Your task to perform on an android device: What's the weather going to be tomorrow? Image 0: 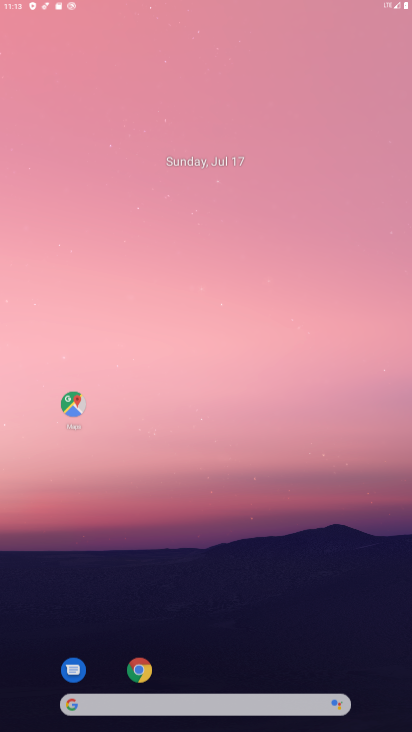
Step 0: drag from (284, 585) to (175, 96)
Your task to perform on an android device: What's the weather going to be tomorrow? Image 1: 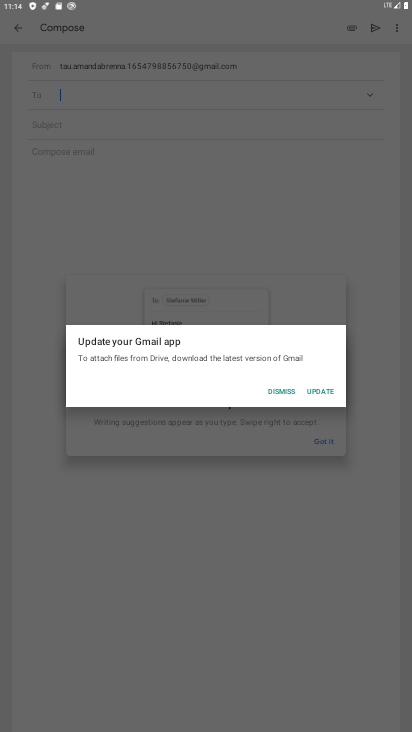
Step 1: press home button
Your task to perform on an android device: What's the weather going to be tomorrow? Image 2: 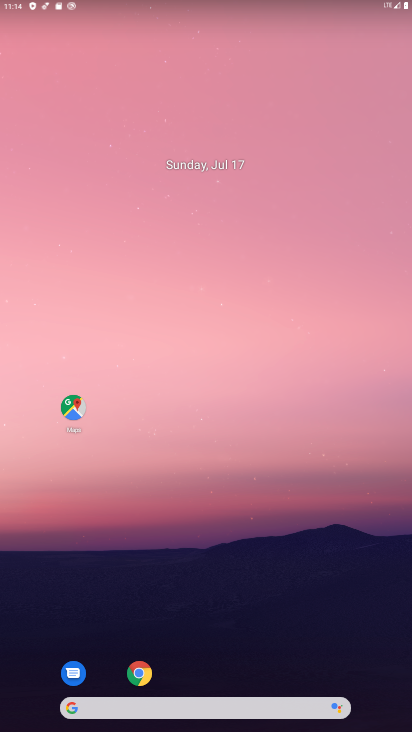
Step 2: click (189, 707)
Your task to perform on an android device: What's the weather going to be tomorrow? Image 3: 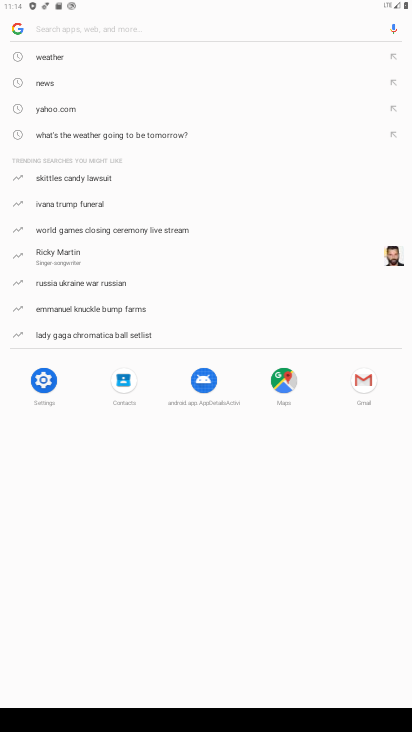
Step 3: click (53, 52)
Your task to perform on an android device: What's the weather going to be tomorrow? Image 4: 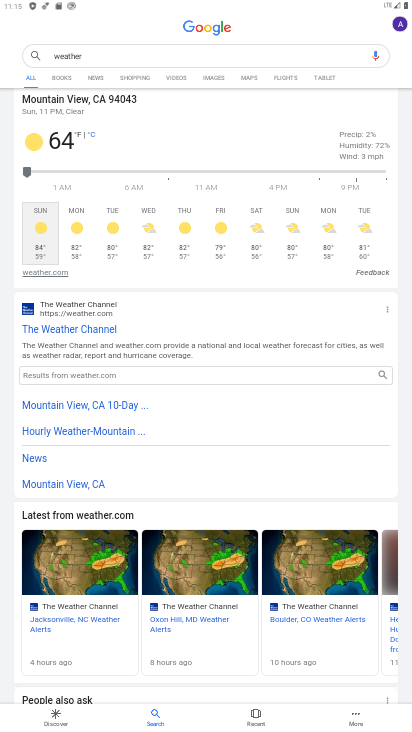
Step 4: task complete